Your task to perform on an android device: change timer sound Image 0: 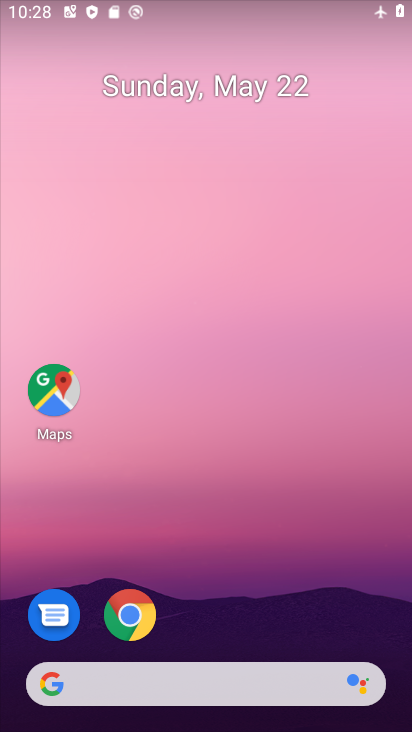
Step 0: drag from (291, 556) to (203, 150)
Your task to perform on an android device: change timer sound Image 1: 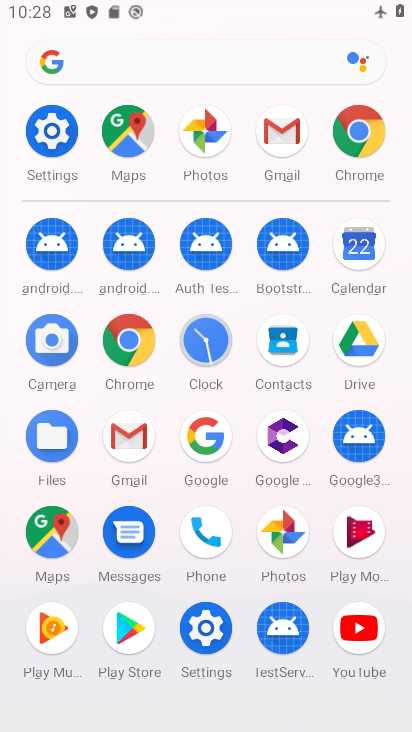
Step 1: click (204, 341)
Your task to perform on an android device: change timer sound Image 2: 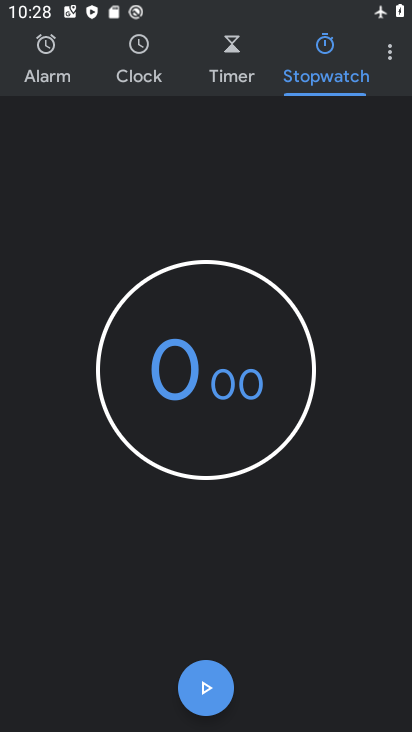
Step 2: click (385, 43)
Your task to perform on an android device: change timer sound Image 3: 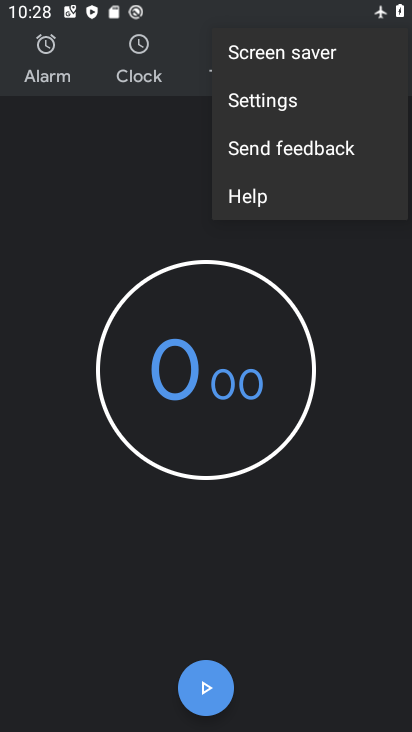
Step 3: click (257, 114)
Your task to perform on an android device: change timer sound Image 4: 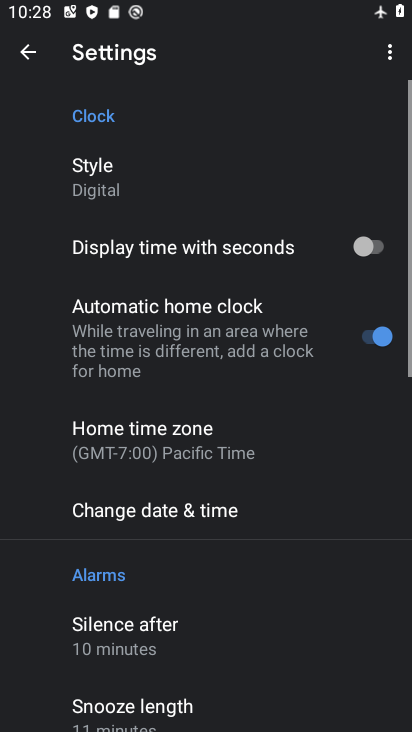
Step 4: drag from (183, 580) to (201, 89)
Your task to perform on an android device: change timer sound Image 5: 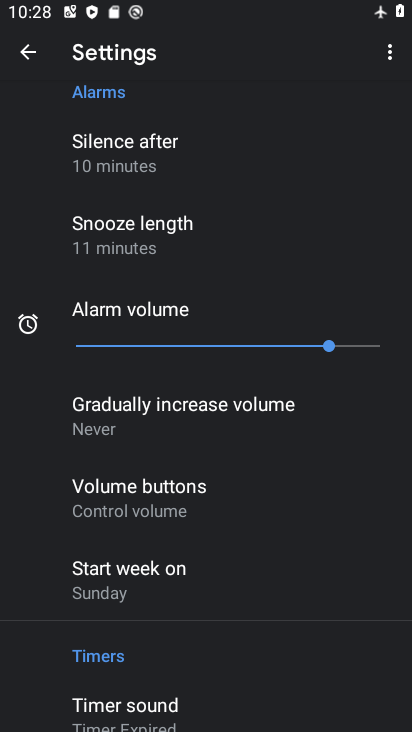
Step 5: drag from (166, 428) to (196, 153)
Your task to perform on an android device: change timer sound Image 6: 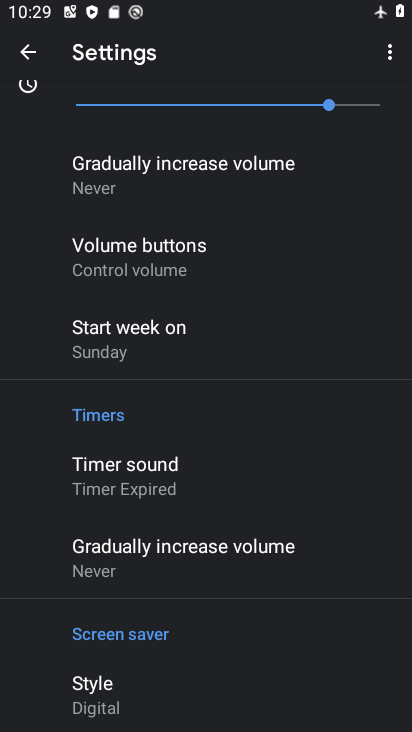
Step 6: click (176, 469)
Your task to perform on an android device: change timer sound Image 7: 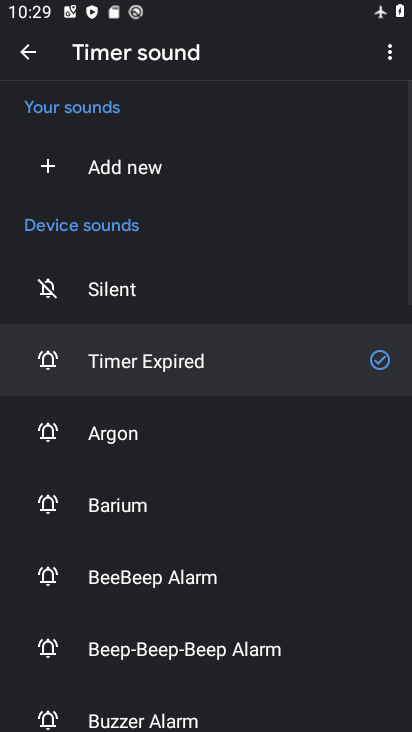
Step 7: click (96, 428)
Your task to perform on an android device: change timer sound Image 8: 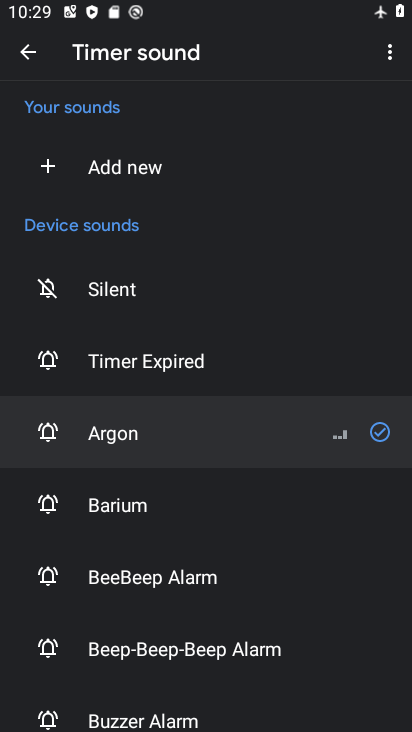
Step 8: task complete